Your task to perform on an android device: open sync settings in chrome Image 0: 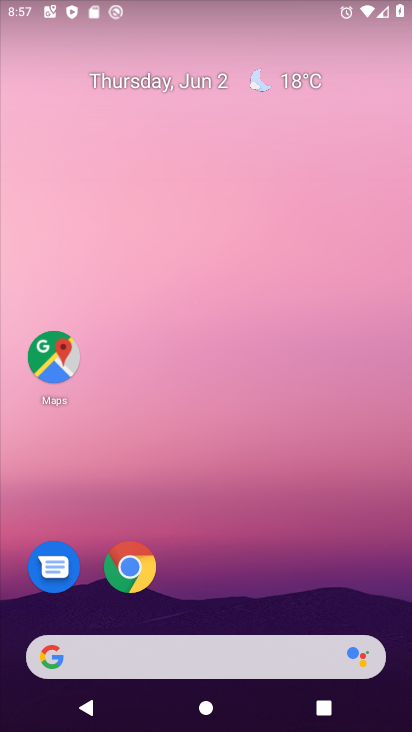
Step 0: click (137, 560)
Your task to perform on an android device: open sync settings in chrome Image 1: 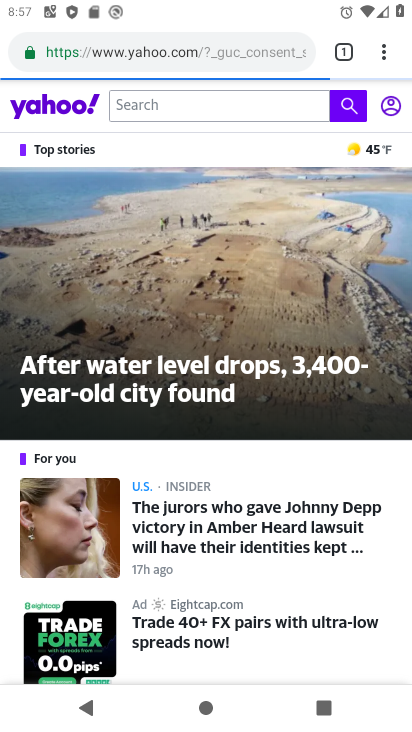
Step 1: click (390, 58)
Your task to perform on an android device: open sync settings in chrome Image 2: 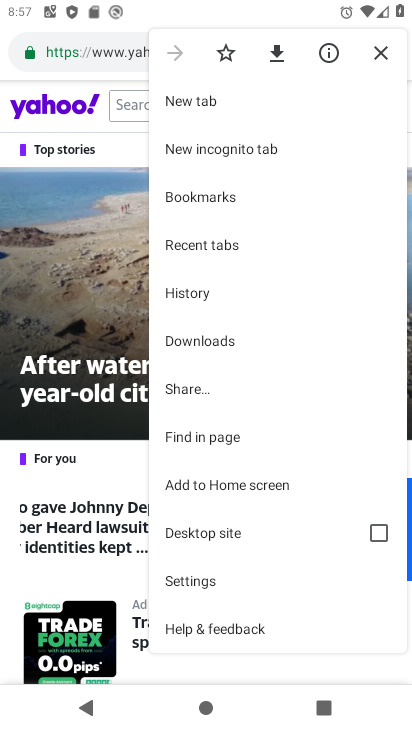
Step 2: click (198, 587)
Your task to perform on an android device: open sync settings in chrome Image 3: 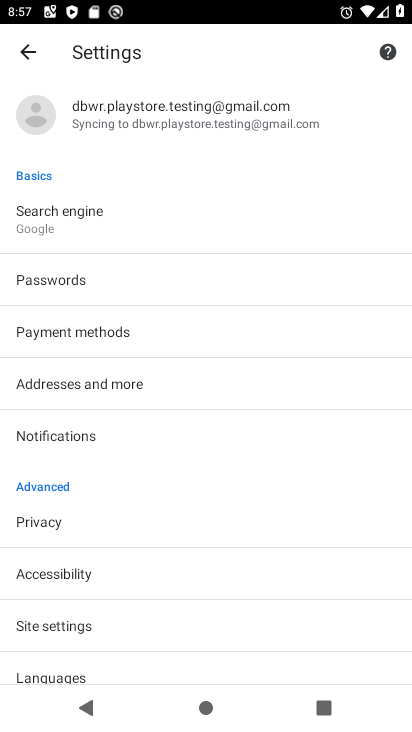
Step 3: click (171, 119)
Your task to perform on an android device: open sync settings in chrome Image 4: 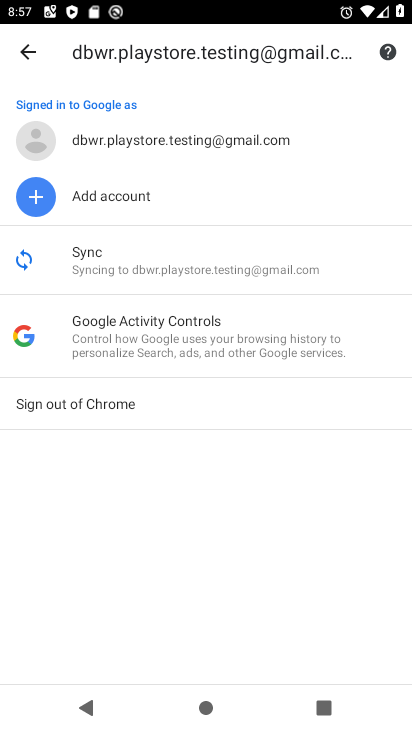
Step 4: click (42, 269)
Your task to perform on an android device: open sync settings in chrome Image 5: 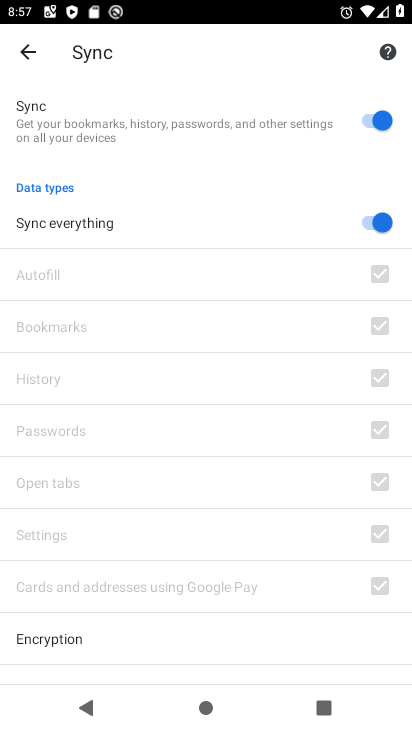
Step 5: task complete